Your task to perform on an android device: Show me popular videos on Youtube Image 0: 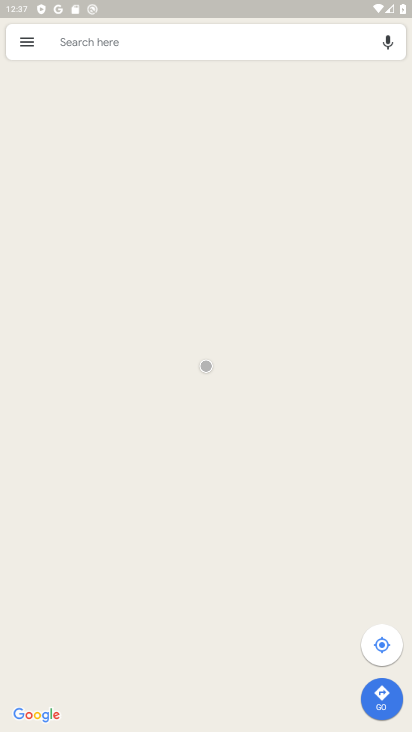
Step 0: press back button
Your task to perform on an android device: Show me popular videos on Youtube Image 1: 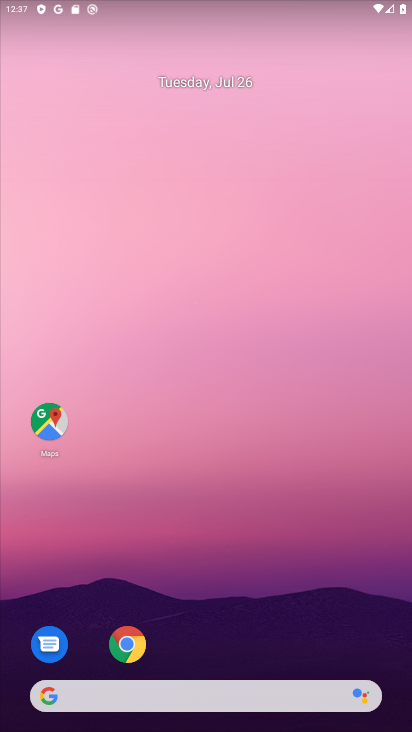
Step 1: drag from (280, 568) to (212, 60)
Your task to perform on an android device: Show me popular videos on Youtube Image 2: 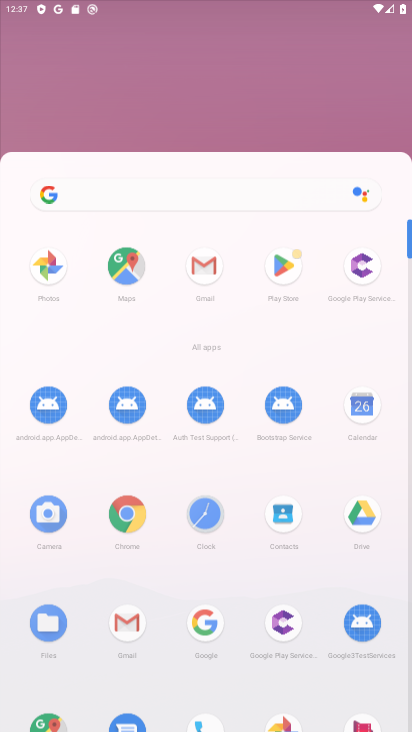
Step 2: drag from (233, 606) to (196, 210)
Your task to perform on an android device: Show me popular videos on Youtube Image 3: 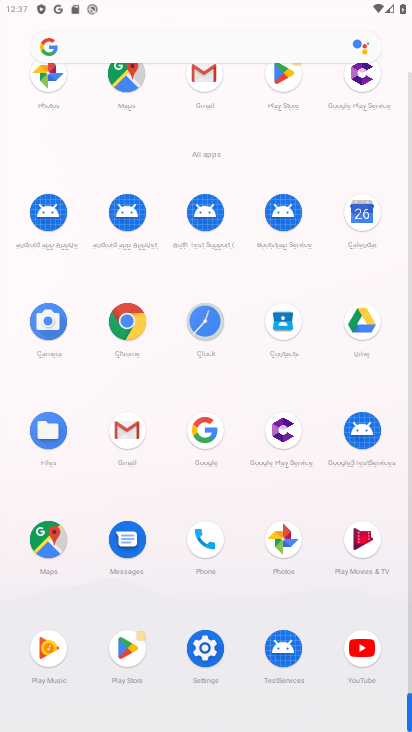
Step 3: drag from (314, 710) to (236, 151)
Your task to perform on an android device: Show me popular videos on Youtube Image 4: 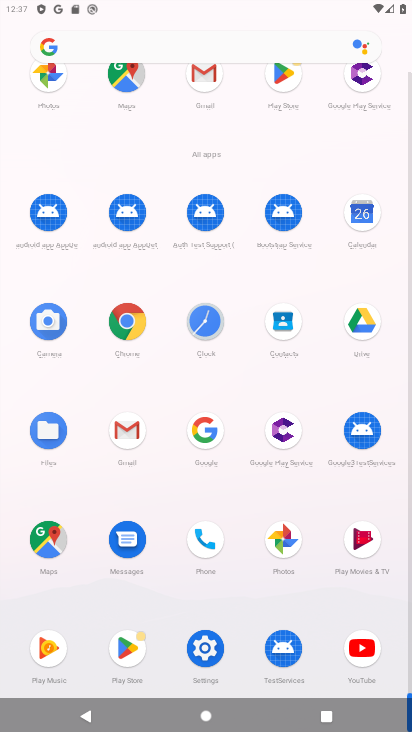
Step 4: drag from (257, 573) to (257, 169)
Your task to perform on an android device: Show me popular videos on Youtube Image 5: 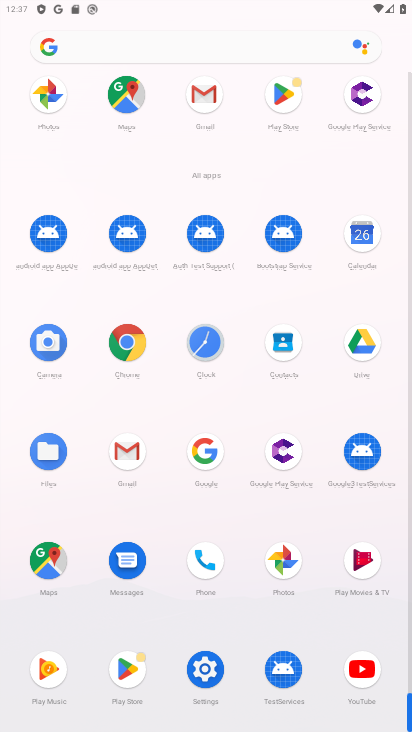
Step 5: click (358, 657)
Your task to perform on an android device: Show me popular videos on Youtube Image 6: 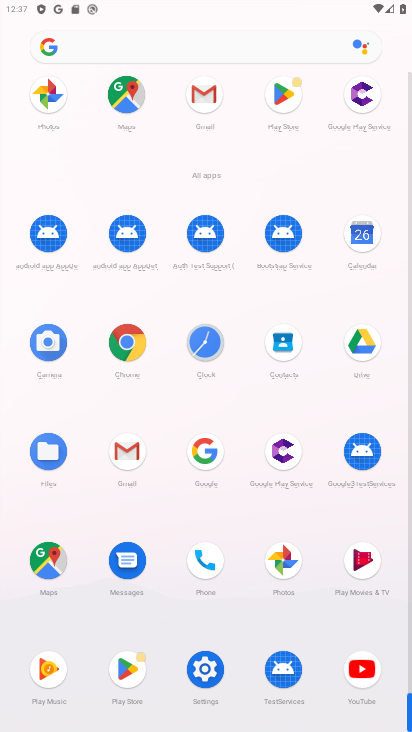
Step 6: click (359, 654)
Your task to perform on an android device: Show me popular videos on Youtube Image 7: 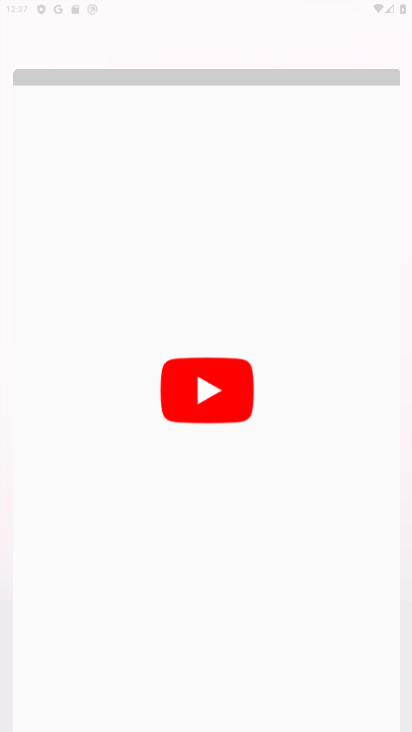
Step 7: click (356, 652)
Your task to perform on an android device: Show me popular videos on Youtube Image 8: 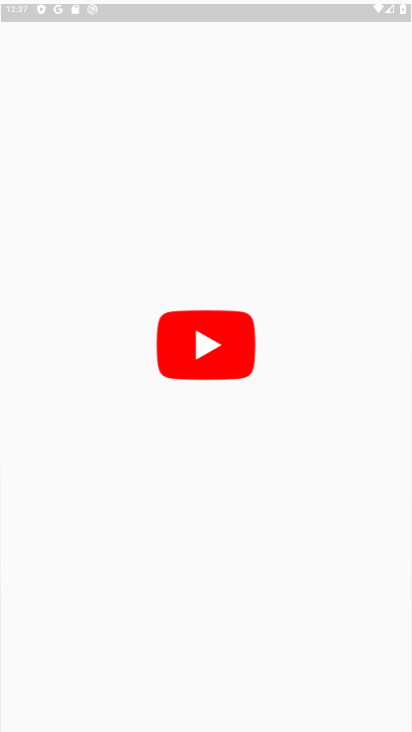
Step 8: click (350, 649)
Your task to perform on an android device: Show me popular videos on Youtube Image 9: 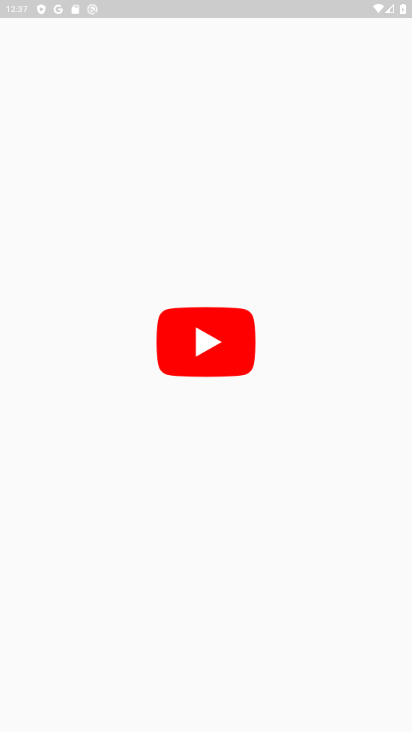
Step 9: click (347, 648)
Your task to perform on an android device: Show me popular videos on Youtube Image 10: 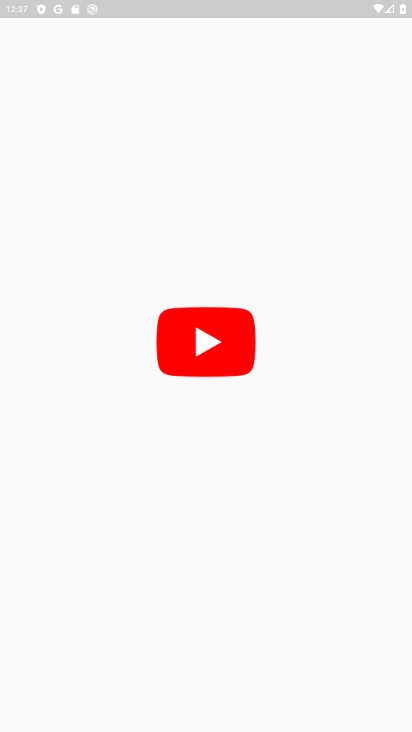
Step 10: click (358, 639)
Your task to perform on an android device: Show me popular videos on Youtube Image 11: 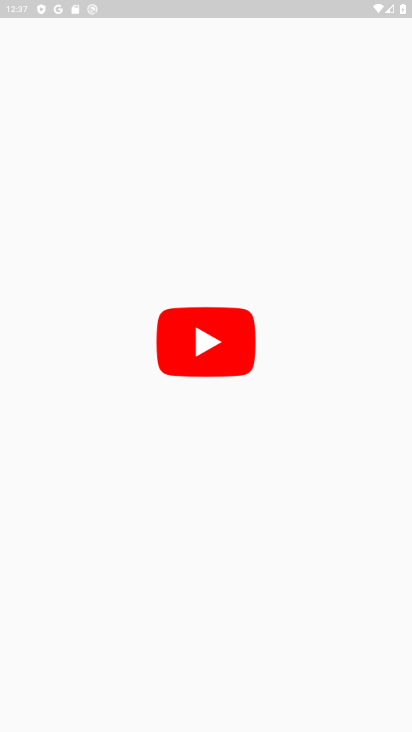
Step 11: click (360, 641)
Your task to perform on an android device: Show me popular videos on Youtube Image 12: 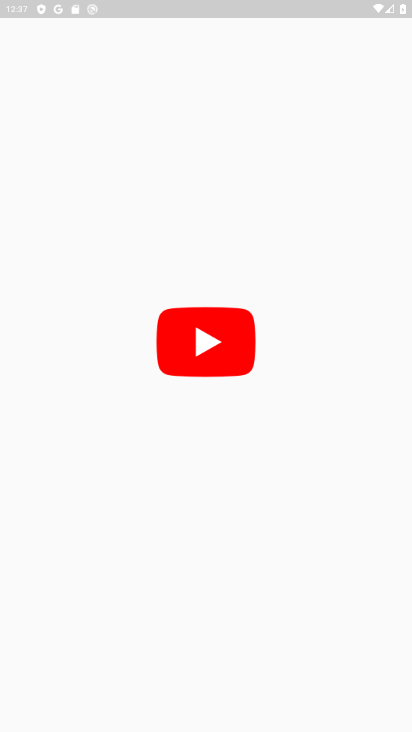
Step 12: click (363, 641)
Your task to perform on an android device: Show me popular videos on Youtube Image 13: 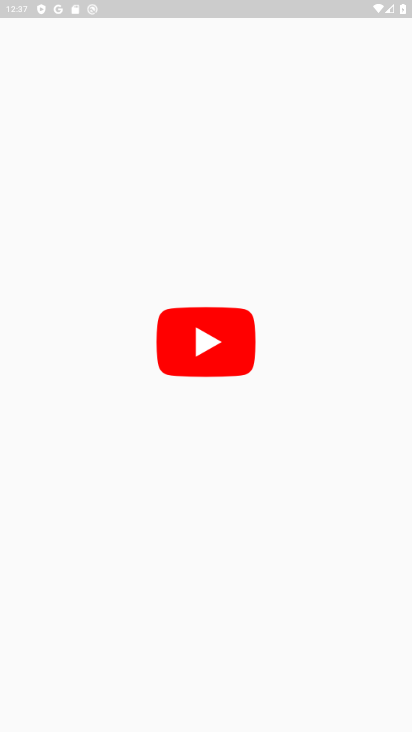
Step 13: click (363, 641)
Your task to perform on an android device: Show me popular videos on Youtube Image 14: 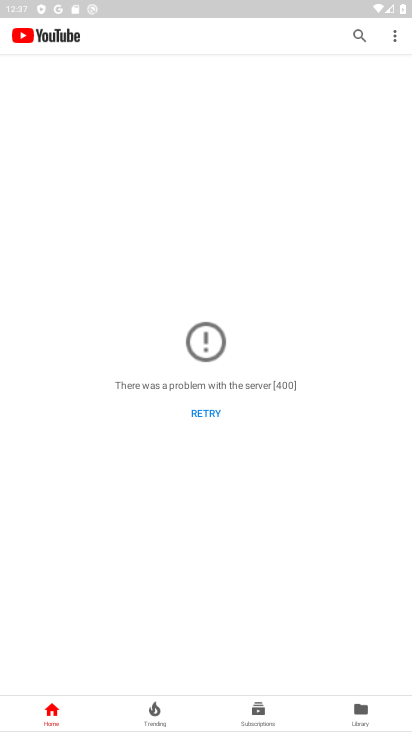
Step 14: click (393, 36)
Your task to perform on an android device: Show me popular videos on Youtube Image 15: 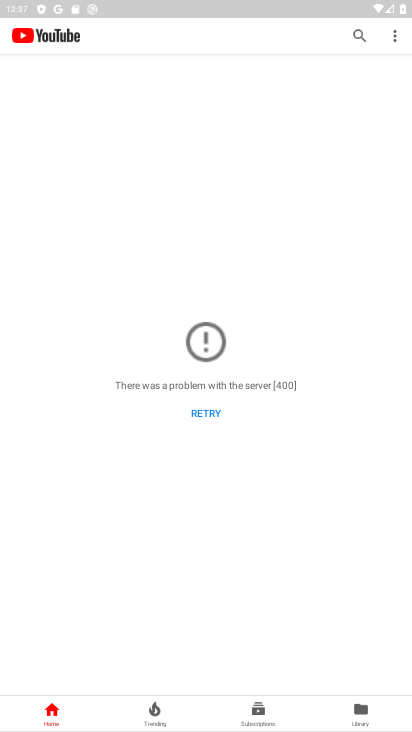
Step 15: click (392, 36)
Your task to perform on an android device: Show me popular videos on Youtube Image 16: 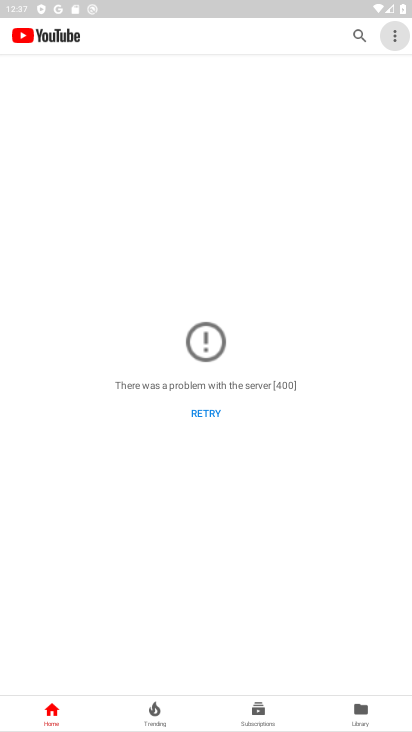
Step 16: click (391, 34)
Your task to perform on an android device: Show me popular videos on Youtube Image 17: 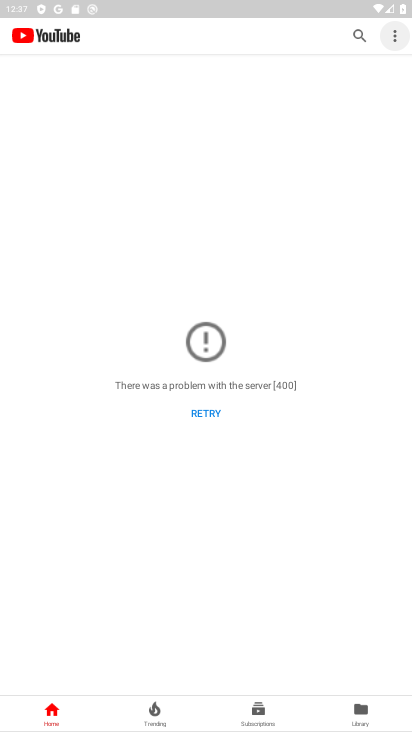
Step 17: click (391, 34)
Your task to perform on an android device: Show me popular videos on Youtube Image 18: 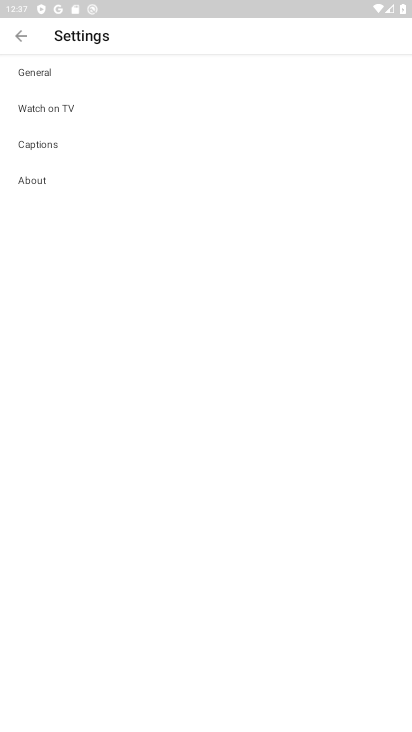
Step 18: click (15, 29)
Your task to perform on an android device: Show me popular videos on Youtube Image 19: 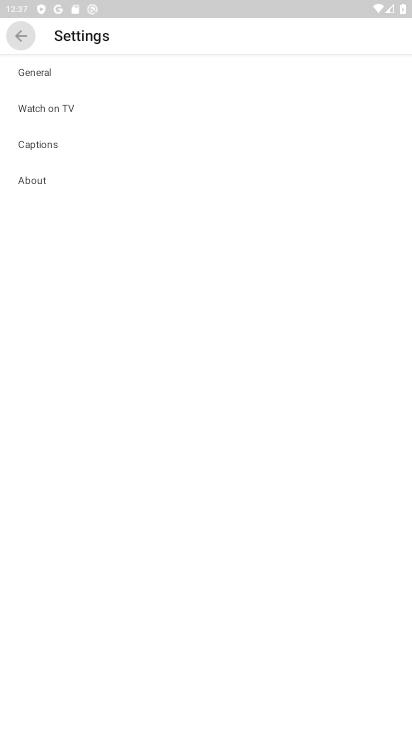
Step 19: click (15, 29)
Your task to perform on an android device: Show me popular videos on Youtube Image 20: 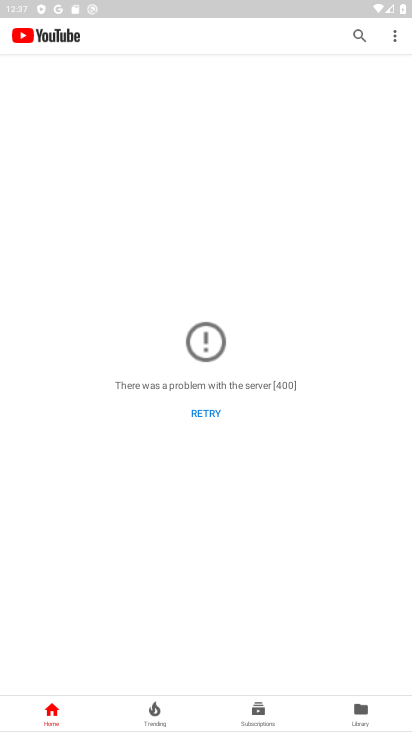
Step 20: task complete